Your task to perform on an android device: Clear the shopping cart on amazon. Add usb-c to usb-a to the cart on amazon, then select checkout. Image 0: 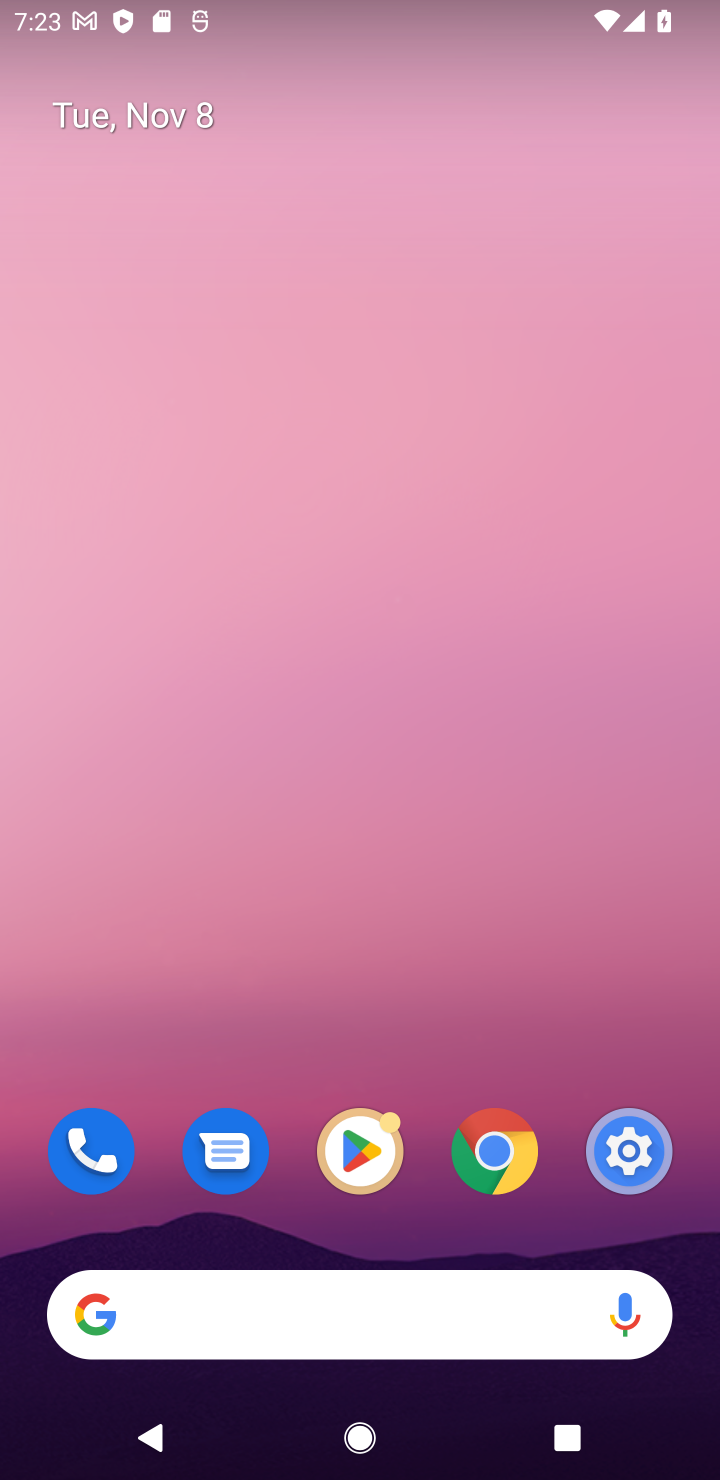
Step 0: press home button
Your task to perform on an android device: Clear the shopping cart on amazon. Add usb-c to usb-a to the cart on amazon, then select checkout. Image 1: 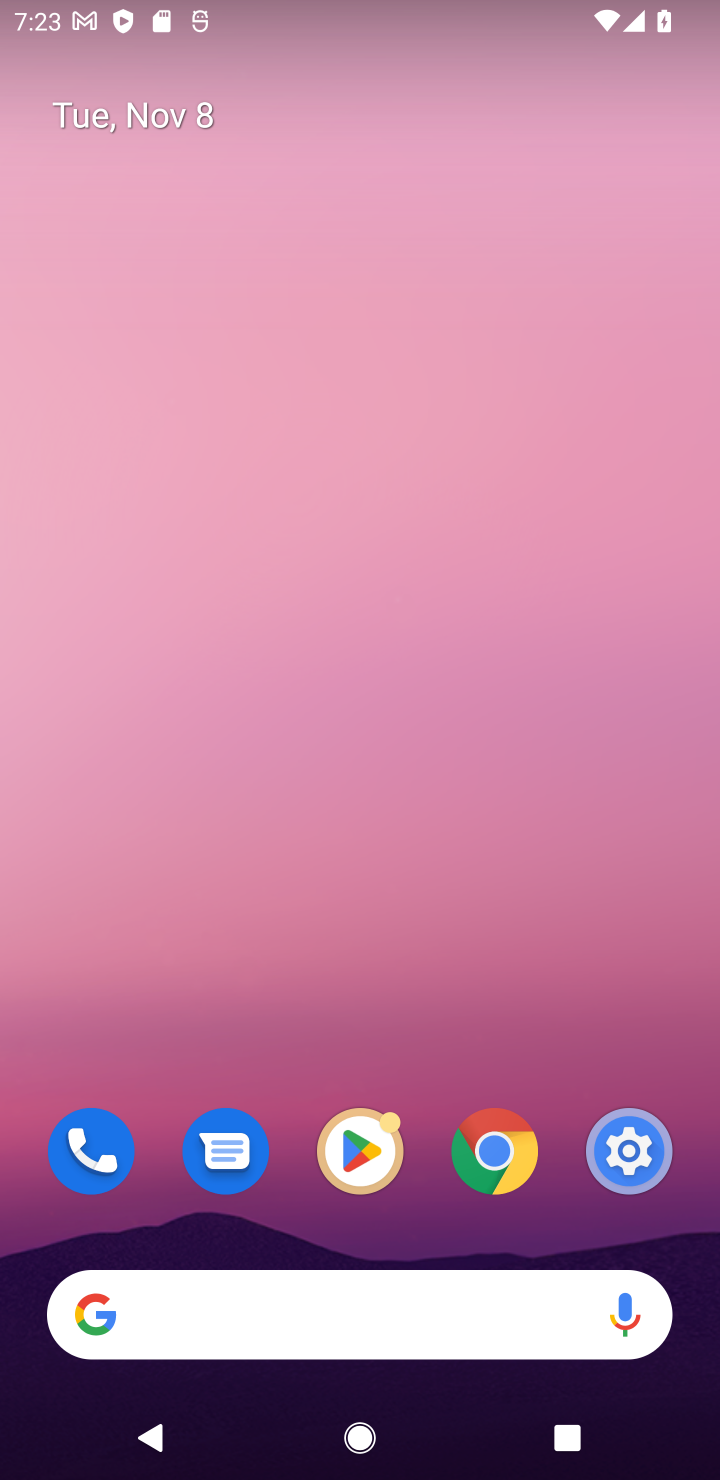
Step 1: click (387, 1302)
Your task to perform on an android device: Clear the shopping cart on amazon. Add usb-c to usb-a to the cart on amazon, then select checkout. Image 2: 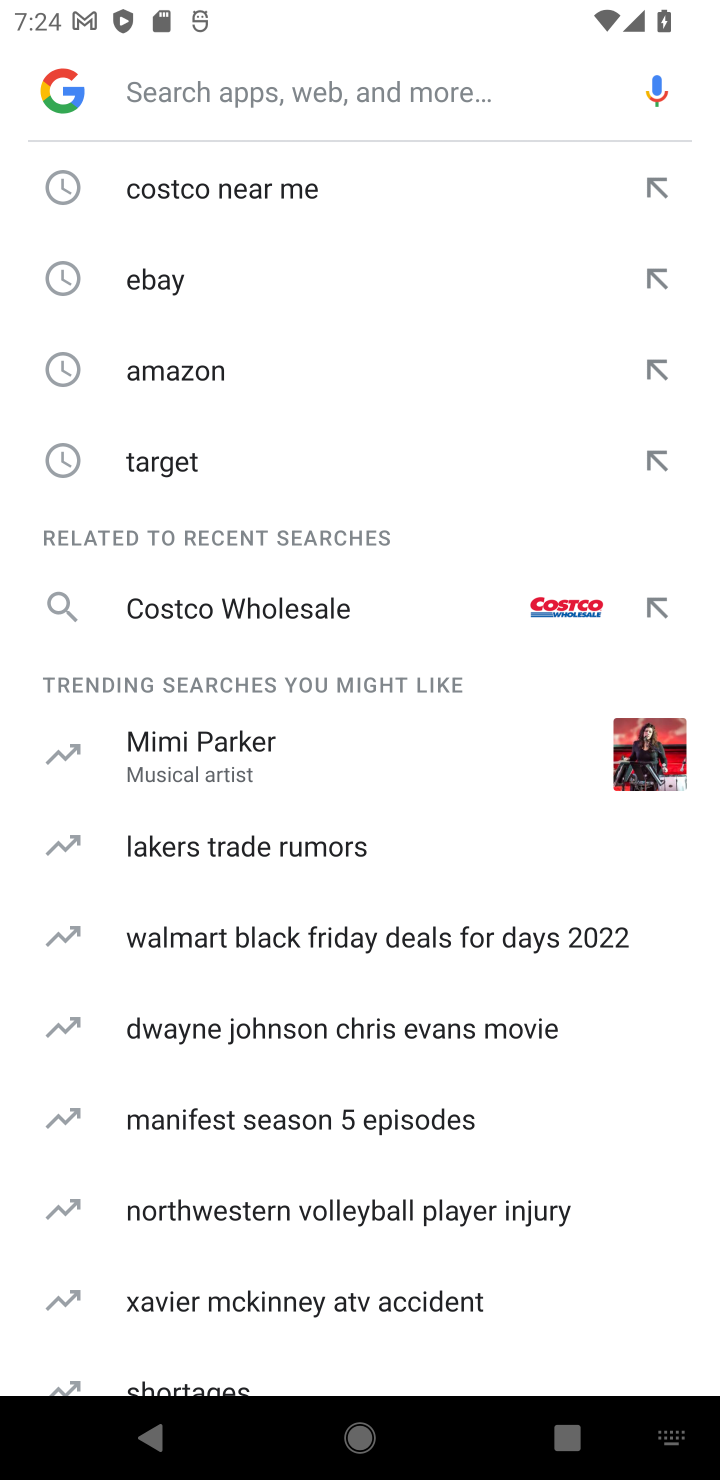
Step 2: type "amazon"
Your task to perform on an android device: Clear the shopping cart on amazon. Add usb-c to usb-a to the cart on amazon, then select checkout. Image 3: 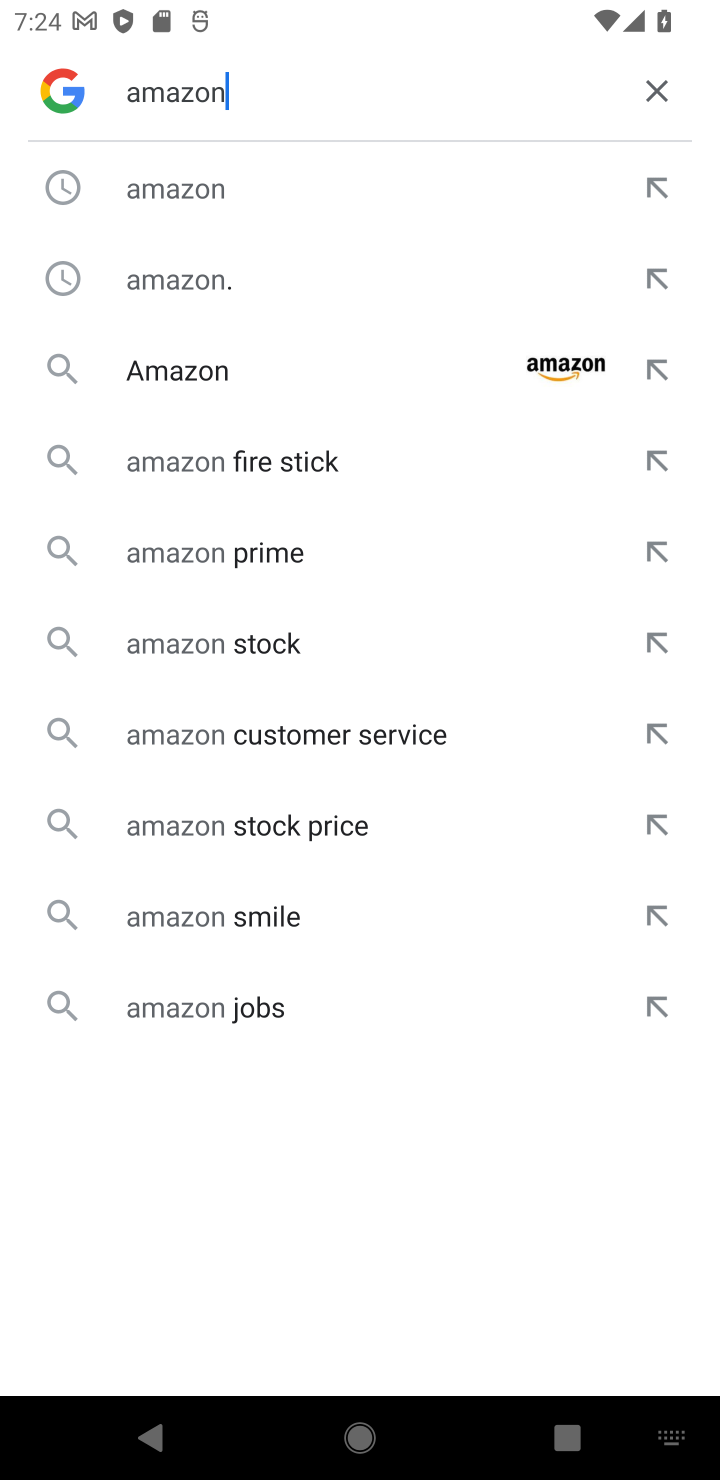
Step 3: click (330, 197)
Your task to perform on an android device: Clear the shopping cart on amazon. Add usb-c to usb-a to the cart on amazon, then select checkout. Image 4: 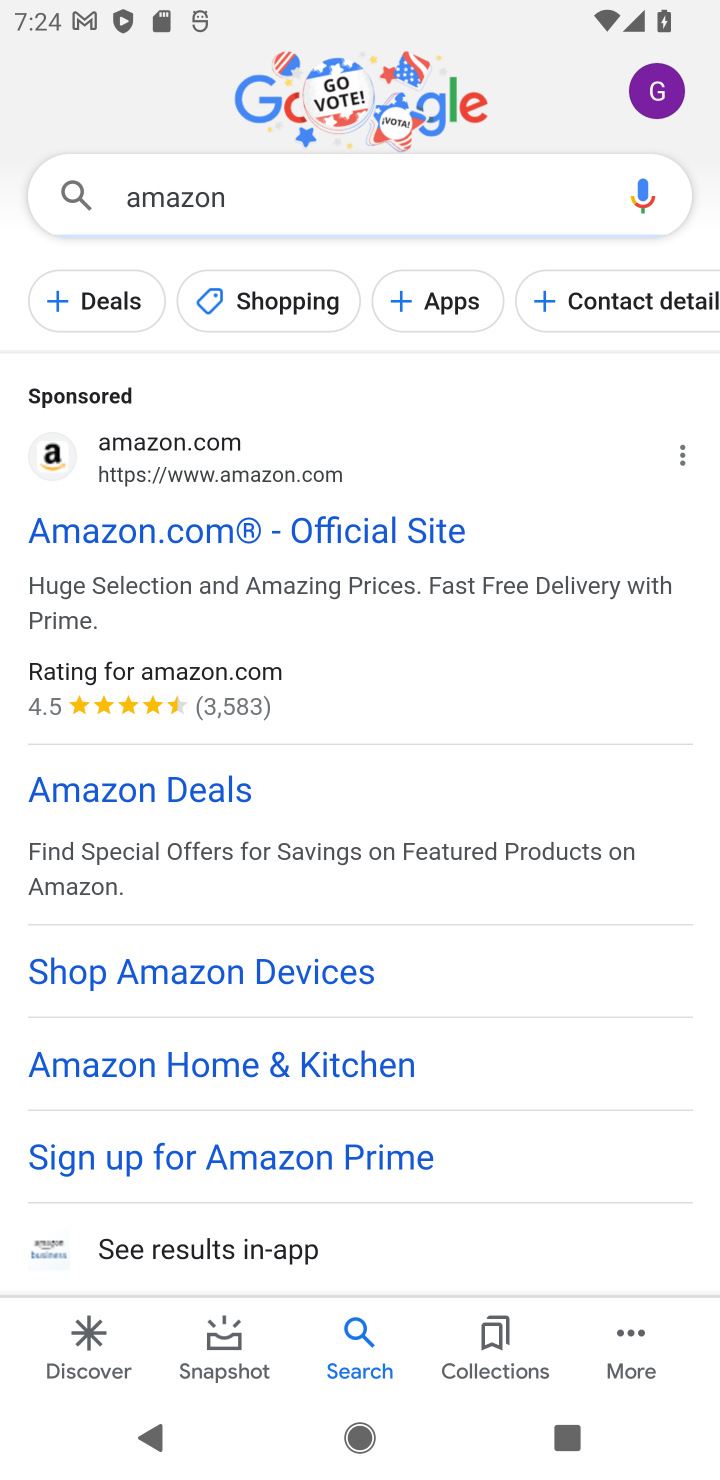
Step 4: click (215, 545)
Your task to perform on an android device: Clear the shopping cart on amazon. Add usb-c to usb-a to the cart on amazon, then select checkout. Image 5: 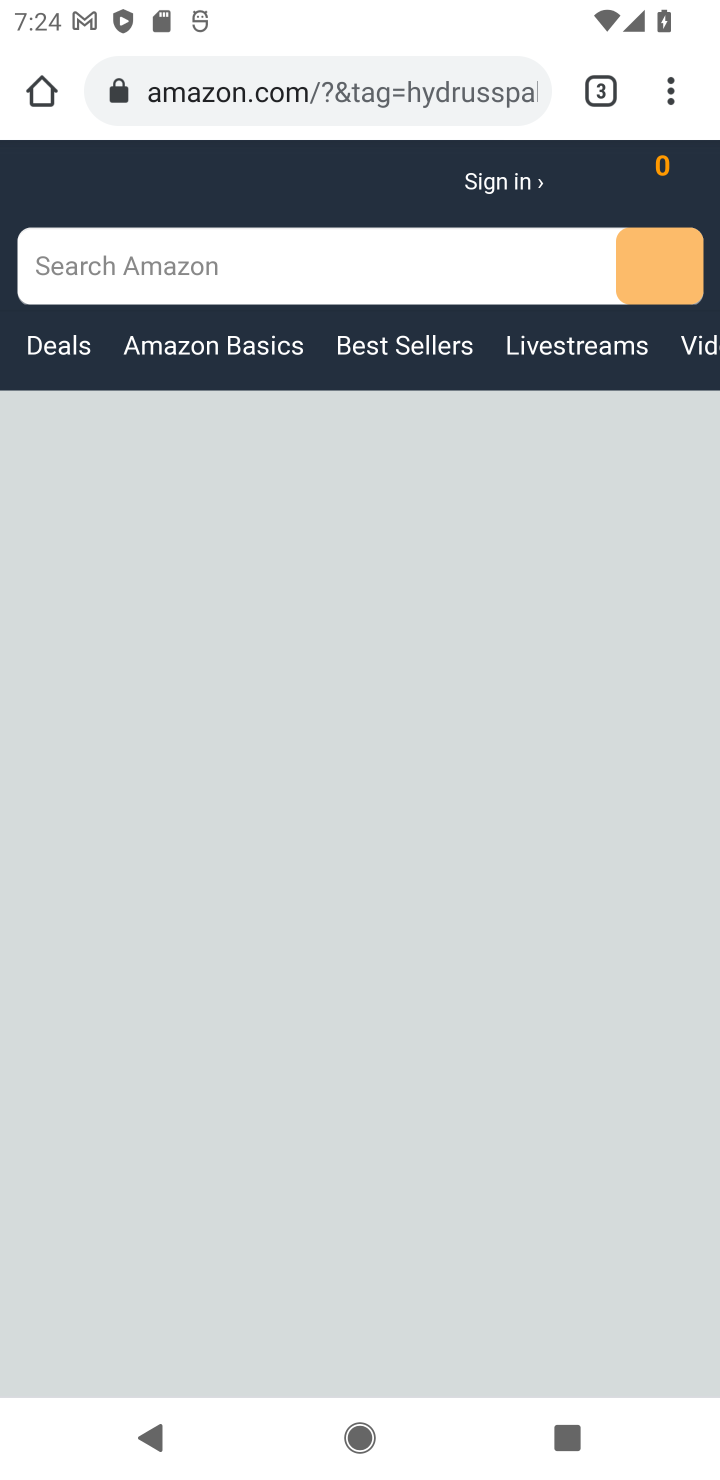
Step 5: task complete